Your task to perform on an android device: toggle wifi Image 0: 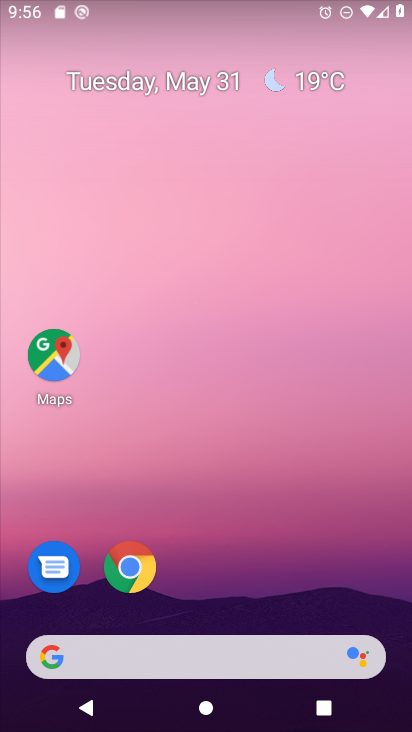
Step 0: drag from (216, 625) to (267, 250)
Your task to perform on an android device: toggle wifi Image 1: 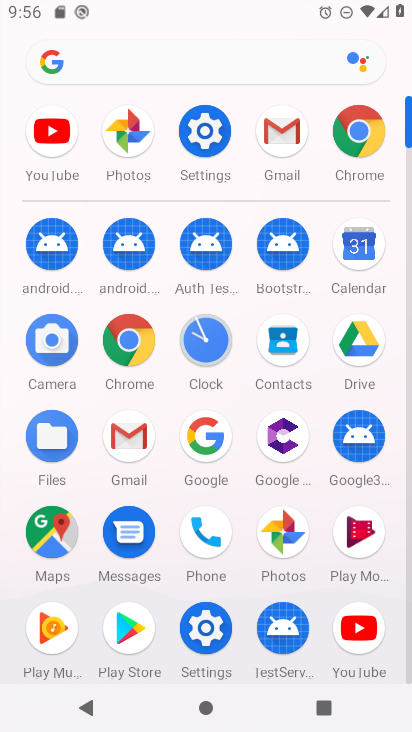
Step 1: click (204, 133)
Your task to perform on an android device: toggle wifi Image 2: 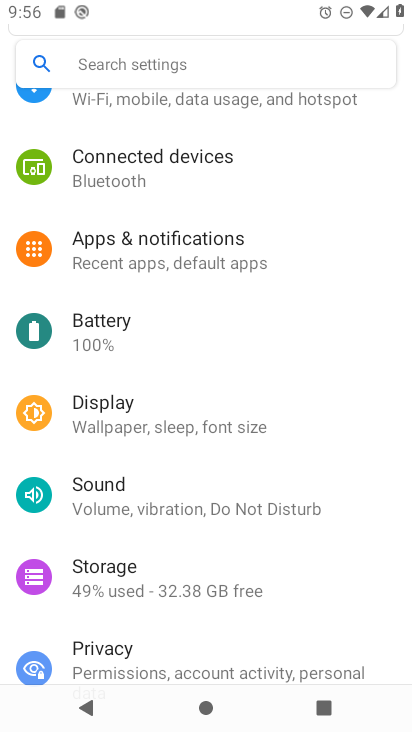
Step 2: click (166, 97)
Your task to perform on an android device: toggle wifi Image 3: 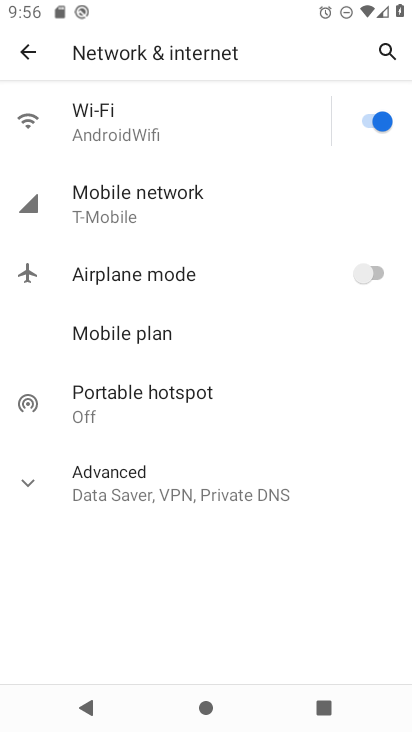
Step 3: click (379, 112)
Your task to perform on an android device: toggle wifi Image 4: 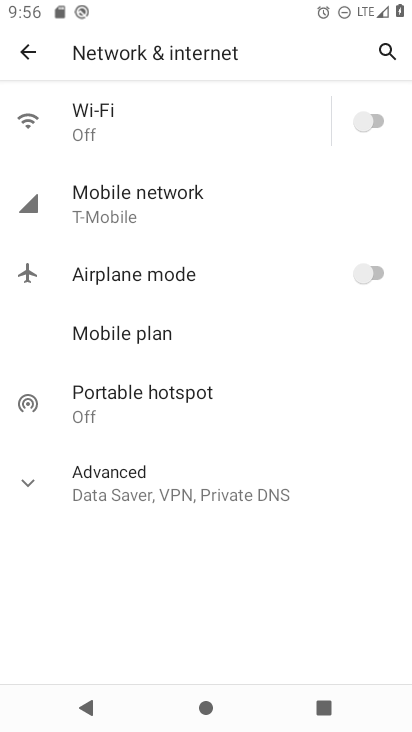
Step 4: task complete